Your task to perform on an android device: What's the weather? Image 0: 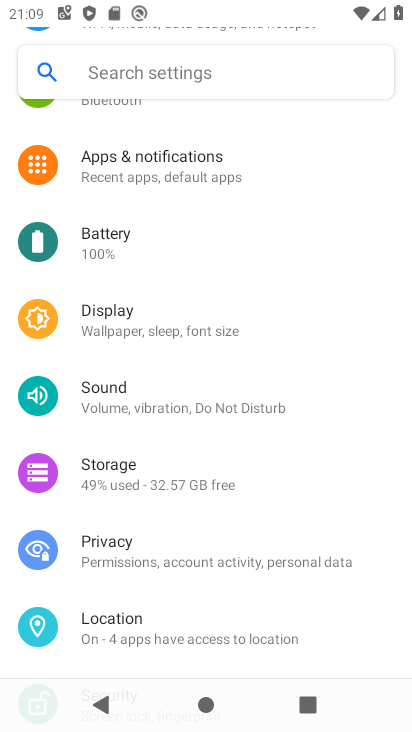
Step 0: press home button
Your task to perform on an android device: What's the weather? Image 1: 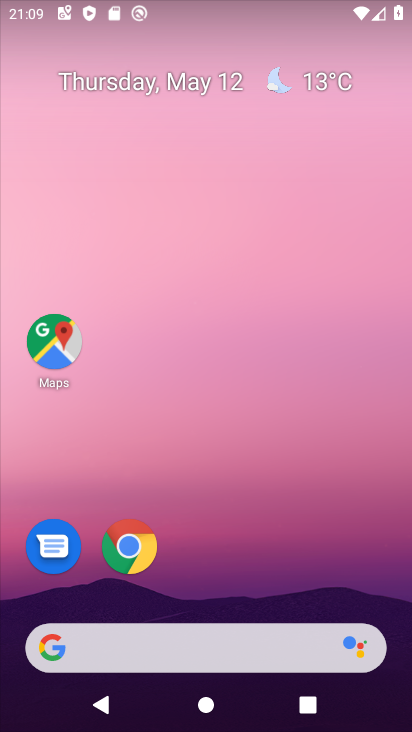
Step 1: click (133, 550)
Your task to perform on an android device: What's the weather? Image 2: 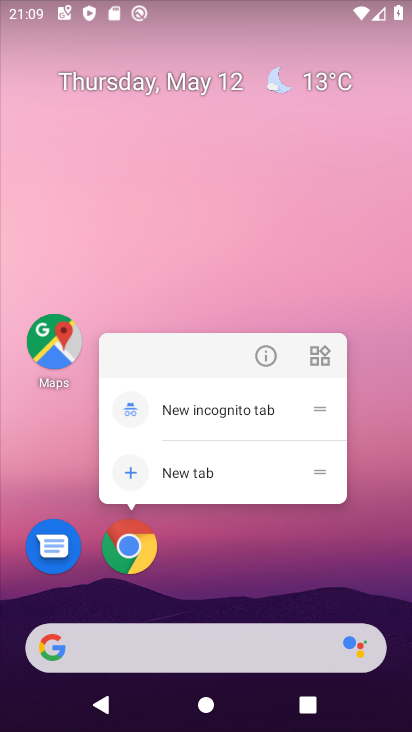
Step 2: click (118, 552)
Your task to perform on an android device: What's the weather? Image 3: 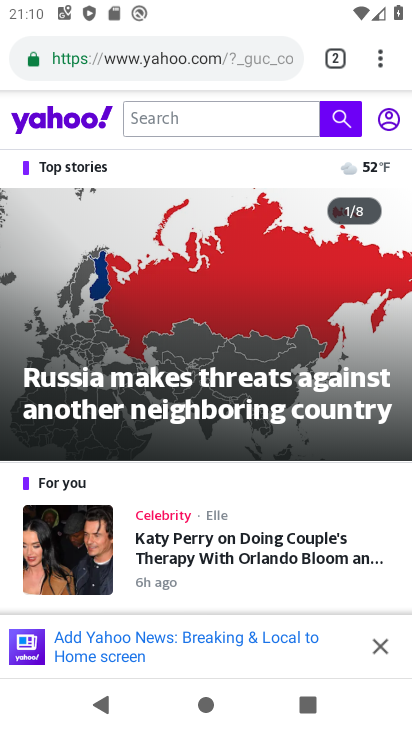
Step 3: drag from (377, 53) to (155, 109)
Your task to perform on an android device: What's the weather? Image 4: 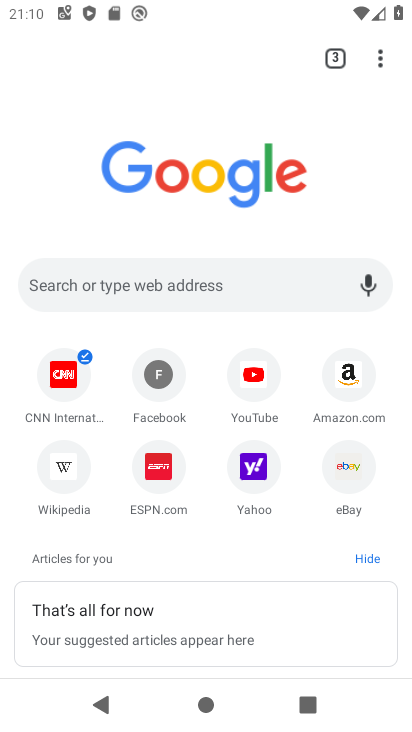
Step 4: click (236, 290)
Your task to perform on an android device: What's the weather? Image 5: 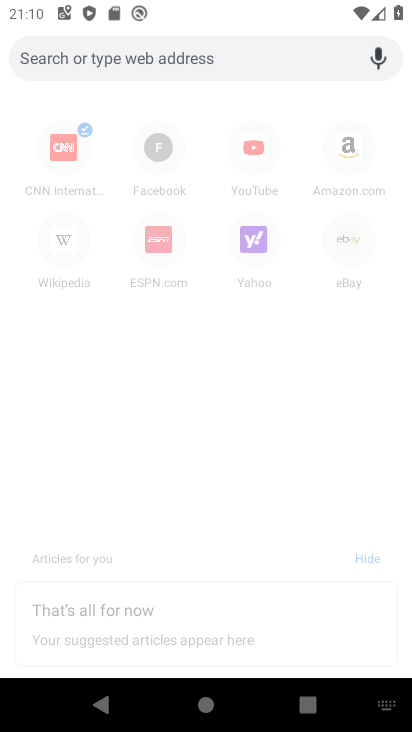
Step 5: type "What's the weather?"
Your task to perform on an android device: What's the weather? Image 6: 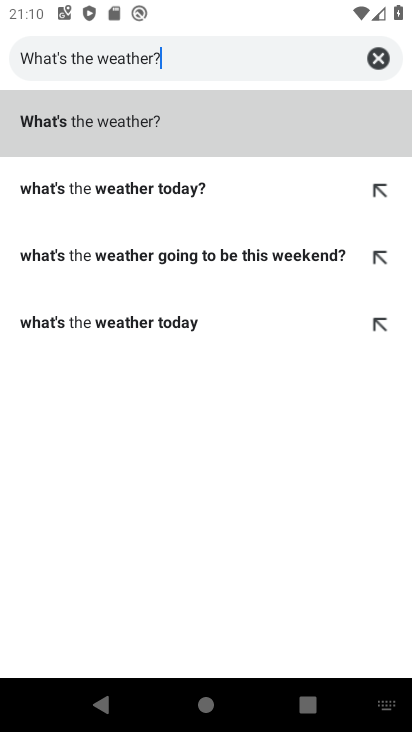
Step 6: click (41, 120)
Your task to perform on an android device: What's the weather? Image 7: 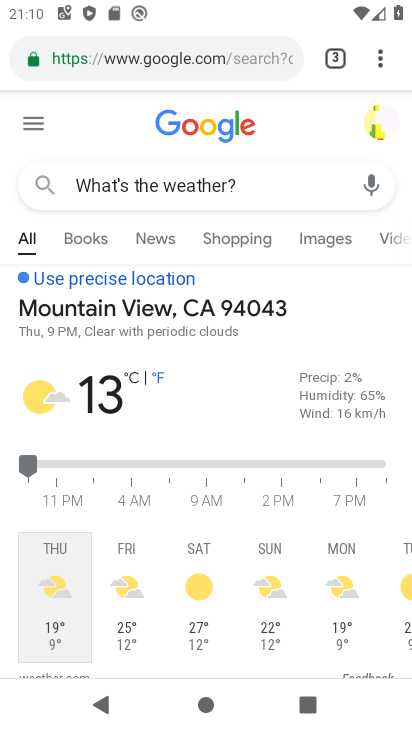
Step 7: task complete